Your task to perform on an android device: Show me the alarms in the clock app Image 0: 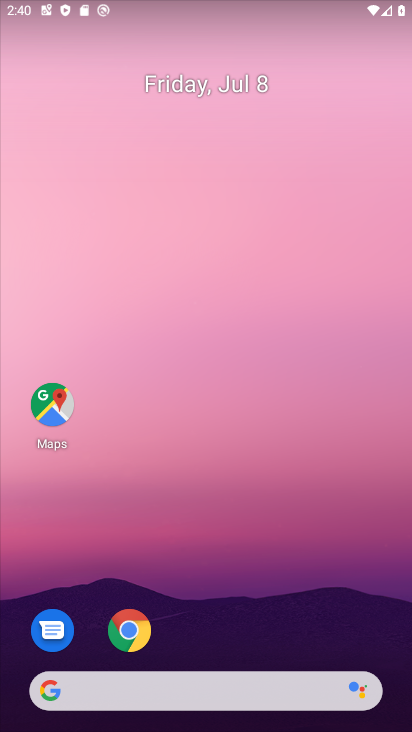
Step 0: drag from (315, 643) to (196, 178)
Your task to perform on an android device: Show me the alarms in the clock app Image 1: 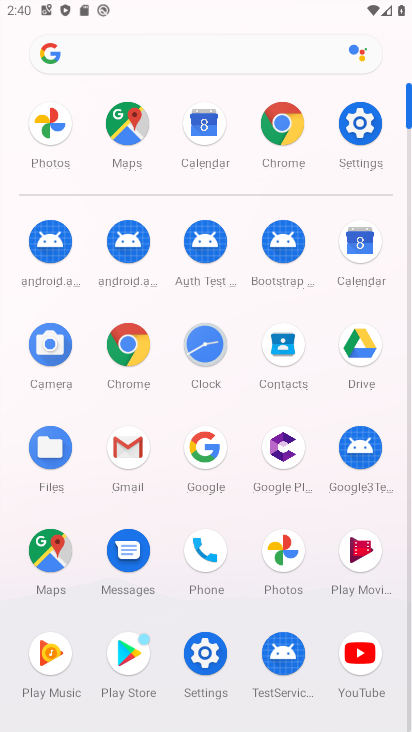
Step 1: click (197, 364)
Your task to perform on an android device: Show me the alarms in the clock app Image 2: 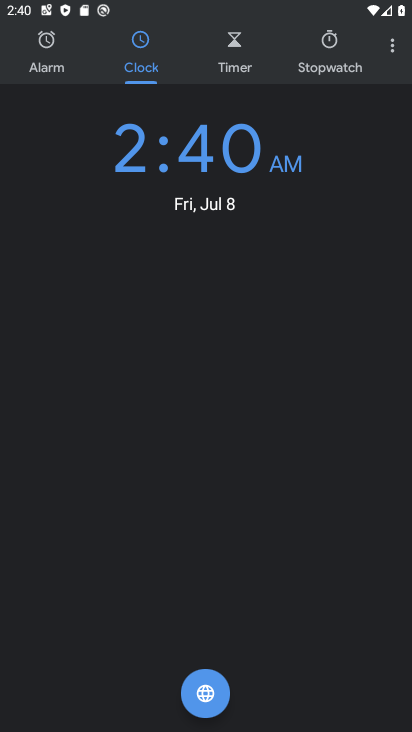
Step 2: click (58, 69)
Your task to perform on an android device: Show me the alarms in the clock app Image 3: 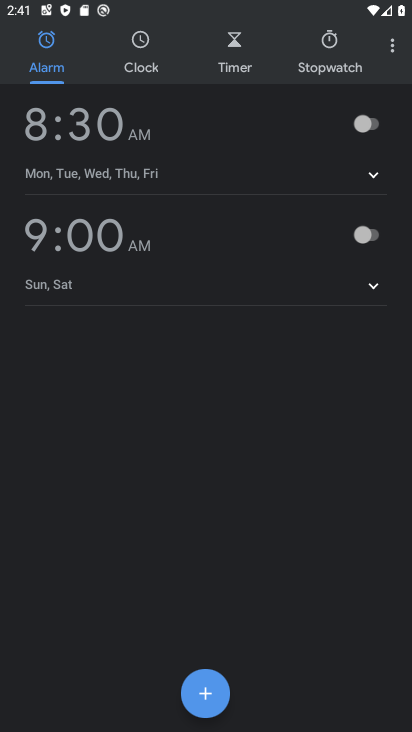
Step 3: task complete